Your task to perform on an android device: turn off notifications in google photos Image 0: 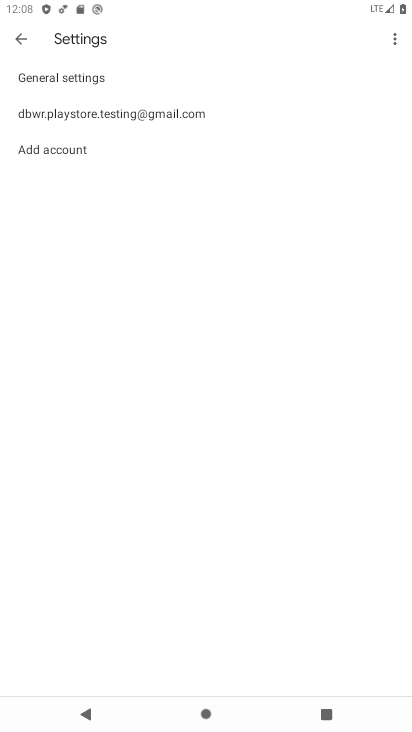
Step 0: press home button
Your task to perform on an android device: turn off notifications in google photos Image 1: 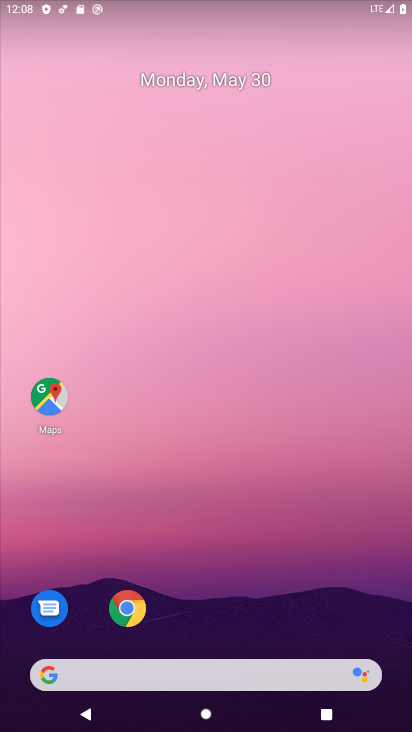
Step 1: drag from (189, 642) to (289, 136)
Your task to perform on an android device: turn off notifications in google photos Image 2: 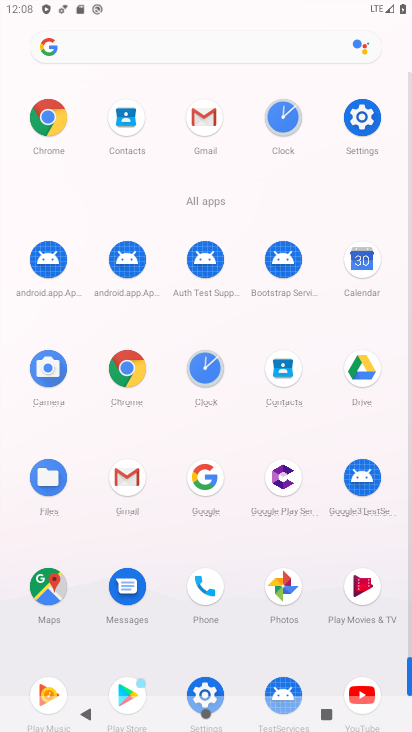
Step 2: click (292, 584)
Your task to perform on an android device: turn off notifications in google photos Image 3: 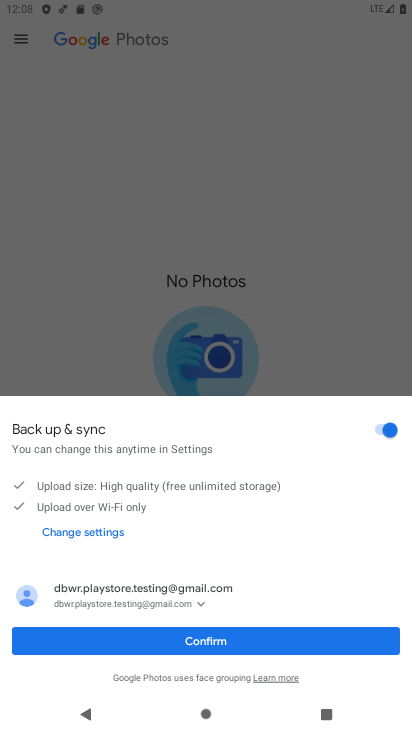
Step 3: click (277, 638)
Your task to perform on an android device: turn off notifications in google photos Image 4: 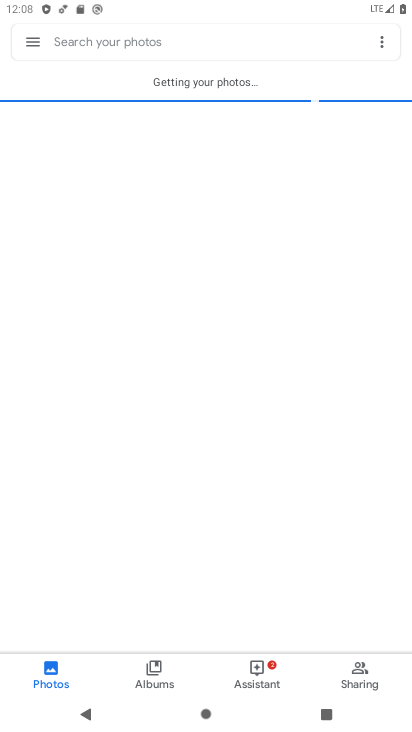
Step 4: click (29, 45)
Your task to perform on an android device: turn off notifications in google photos Image 5: 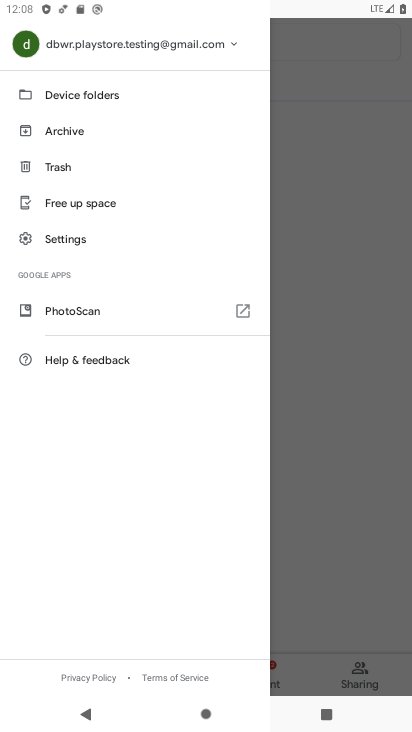
Step 5: click (79, 250)
Your task to perform on an android device: turn off notifications in google photos Image 6: 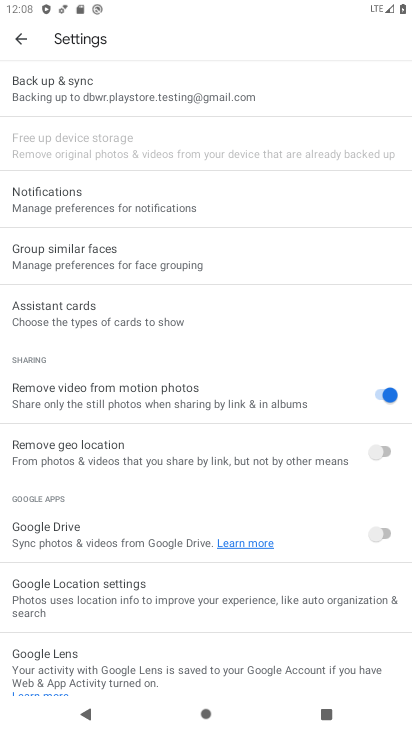
Step 6: click (102, 196)
Your task to perform on an android device: turn off notifications in google photos Image 7: 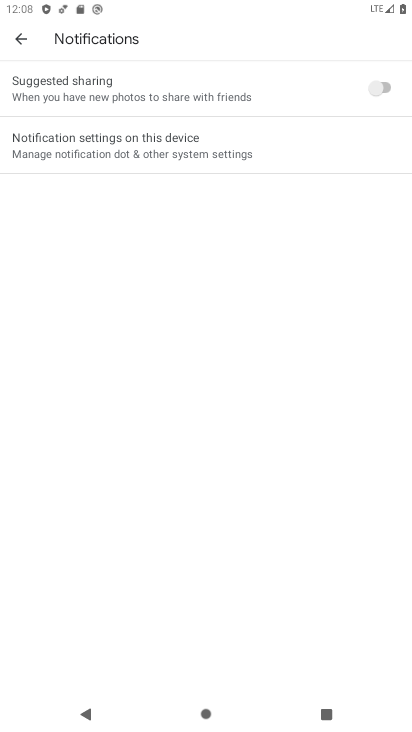
Step 7: click (231, 141)
Your task to perform on an android device: turn off notifications in google photos Image 8: 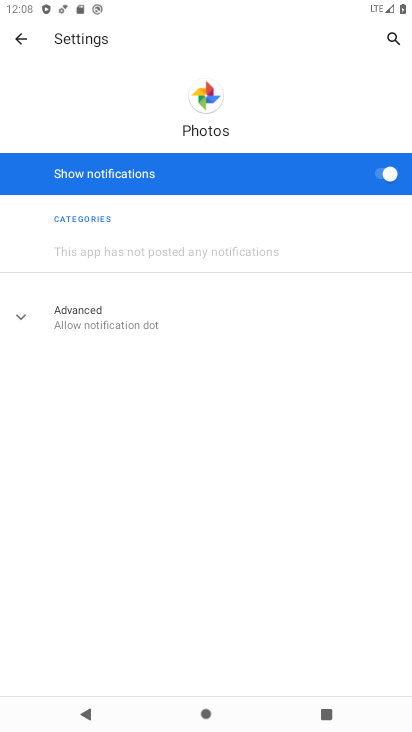
Step 8: click (361, 169)
Your task to perform on an android device: turn off notifications in google photos Image 9: 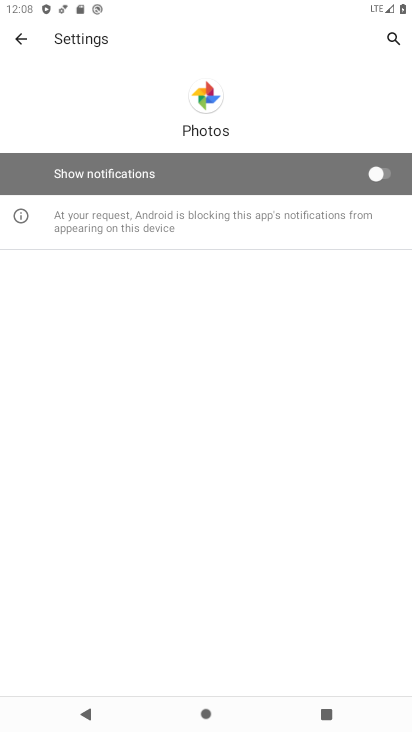
Step 9: task complete